Your task to perform on an android device: turn on showing notifications on the lock screen Image 0: 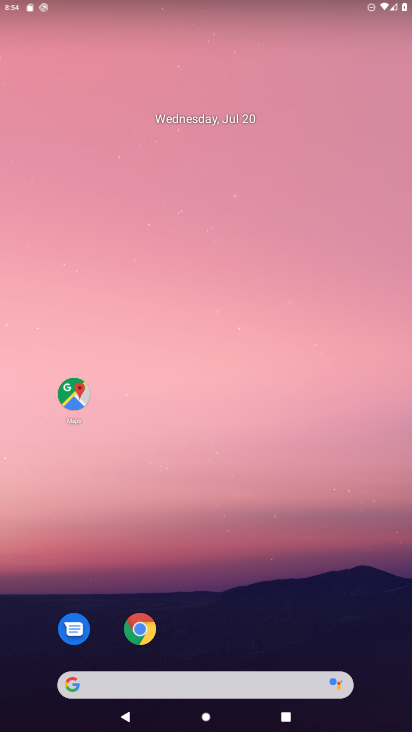
Step 0: drag from (379, 655) to (382, 140)
Your task to perform on an android device: turn on showing notifications on the lock screen Image 1: 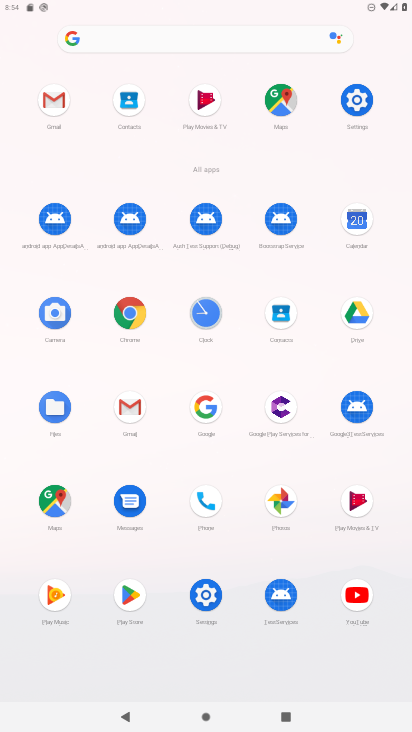
Step 1: click (203, 591)
Your task to perform on an android device: turn on showing notifications on the lock screen Image 2: 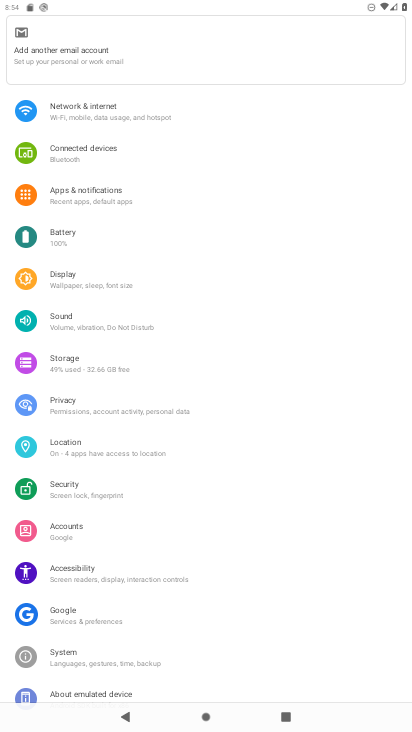
Step 2: click (101, 191)
Your task to perform on an android device: turn on showing notifications on the lock screen Image 3: 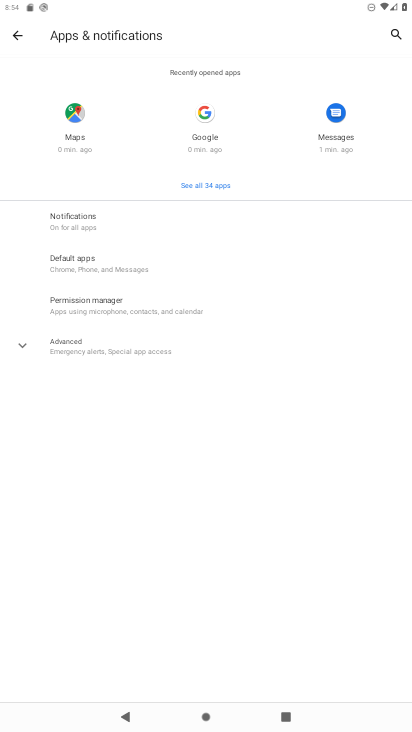
Step 3: click (69, 221)
Your task to perform on an android device: turn on showing notifications on the lock screen Image 4: 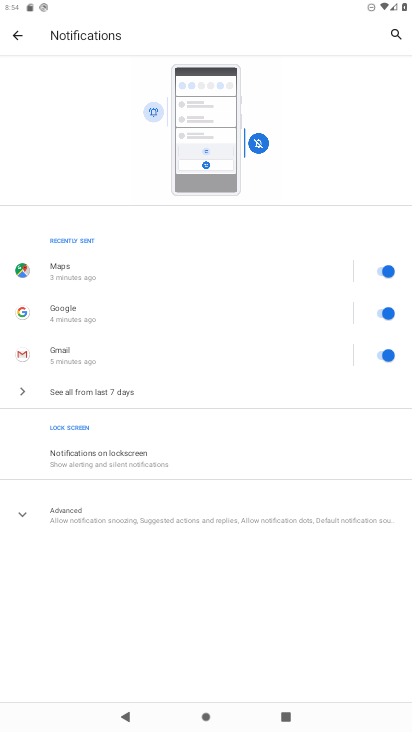
Step 4: click (104, 454)
Your task to perform on an android device: turn on showing notifications on the lock screen Image 5: 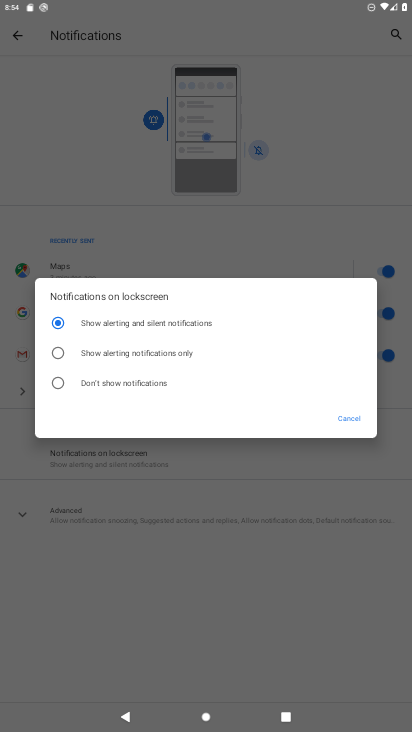
Step 5: task complete